Your task to perform on an android device: open the mobile data screen to see how much data has been used Image 0: 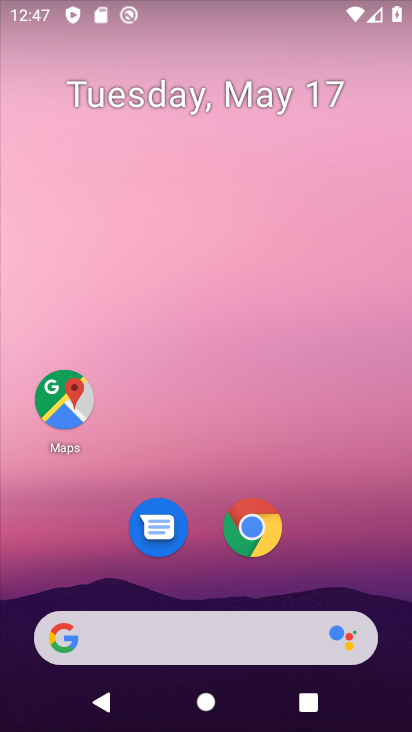
Step 0: click (361, 504)
Your task to perform on an android device: open the mobile data screen to see how much data has been used Image 1: 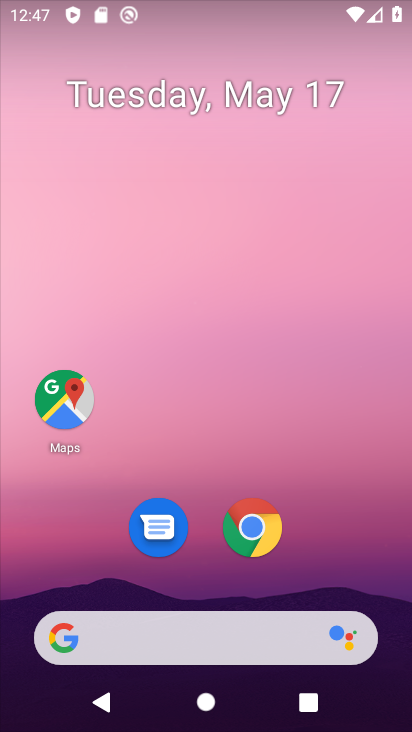
Step 1: drag from (225, 563) to (300, 139)
Your task to perform on an android device: open the mobile data screen to see how much data has been used Image 2: 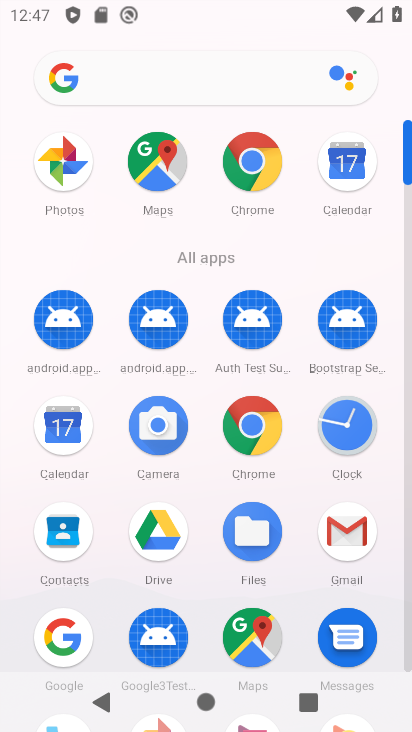
Step 2: drag from (157, 625) to (214, 399)
Your task to perform on an android device: open the mobile data screen to see how much data has been used Image 3: 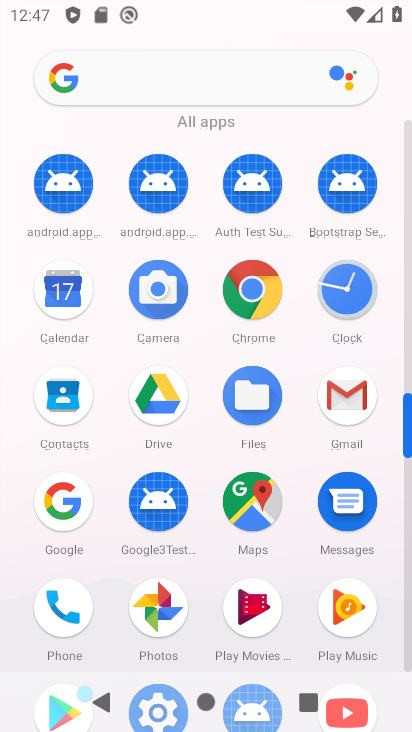
Step 3: click (169, 693)
Your task to perform on an android device: open the mobile data screen to see how much data has been used Image 4: 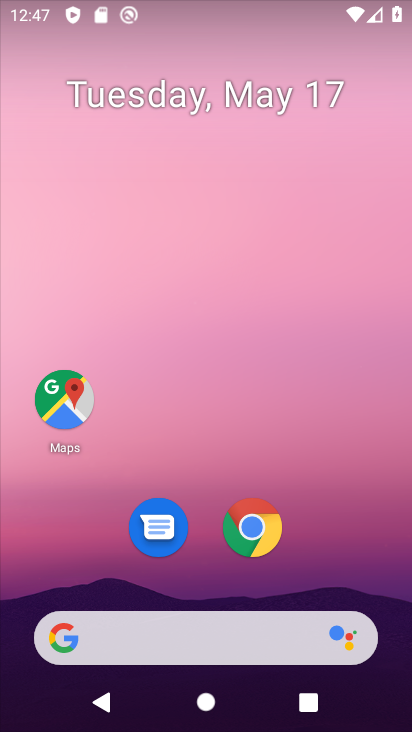
Step 4: drag from (163, 648) to (264, 44)
Your task to perform on an android device: open the mobile data screen to see how much data has been used Image 5: 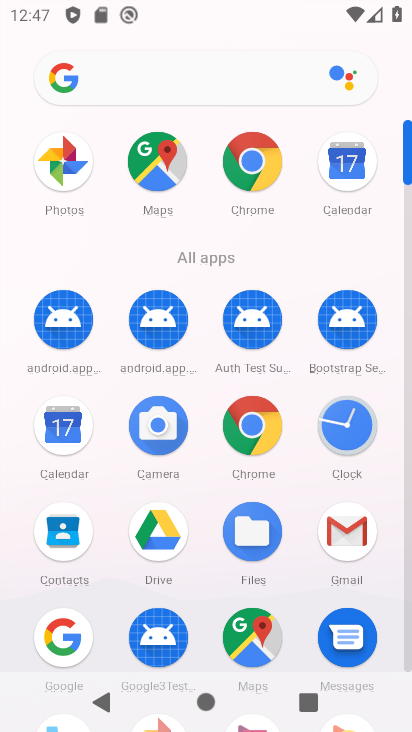
Step 5: drag from (168, 637) to (291, 192)
Your task to perform on an android device: open the mobile data screen to see how much data has been used Image 6: 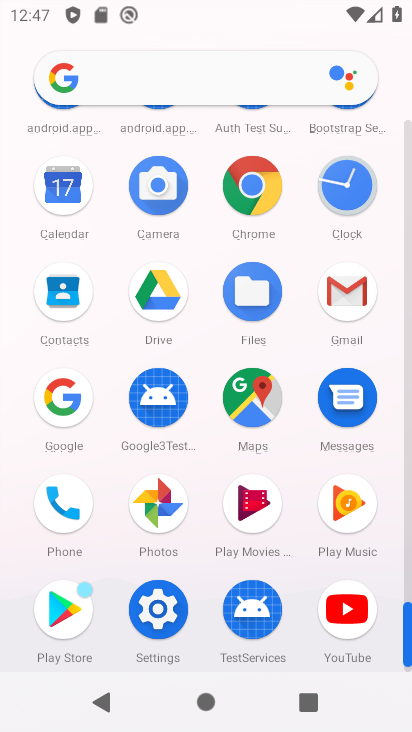
Step 6: click (155, 628)
Your task to perform on an android device: open the mobile data screen to see how much data has been used Image 7: 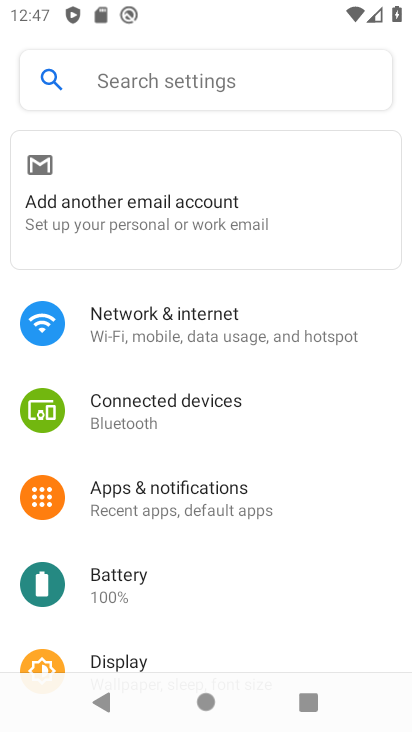
Step 7: click (218, 322)
Your task to perform on an android device: open the mobile data screen to see how much data has been used Image 8: 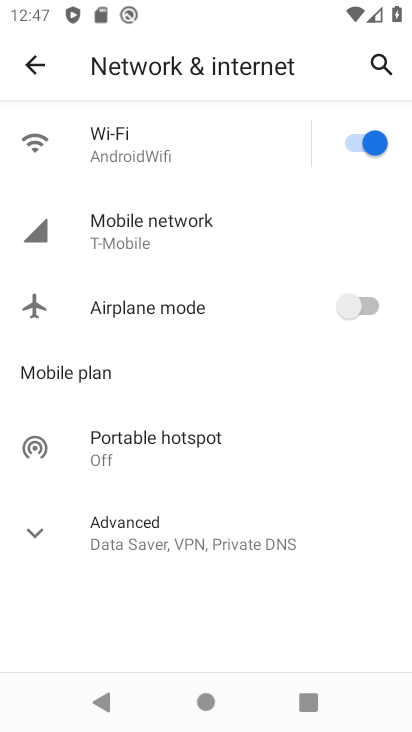
Step 8: click (207, 215)
Your task to perform on an android device: open the mobile data screen to see how much data has been used Image 9: 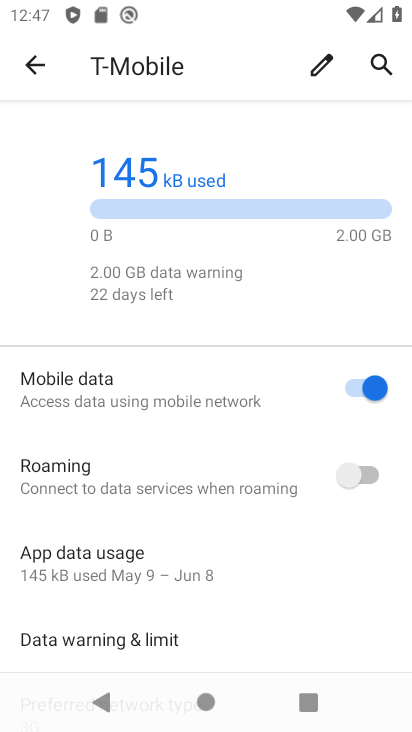
Step 9: task complete